Your task to perform on an android device: turn on priority inbox in the gmail app Image 0: 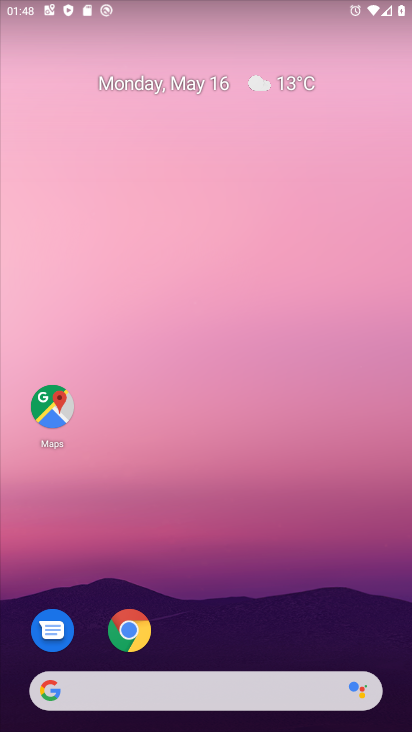
Step 0: drag from (155, 210) to (143, 110)
Your task to perform on an android device: turn on priority inbox in the gmail app Image 1: 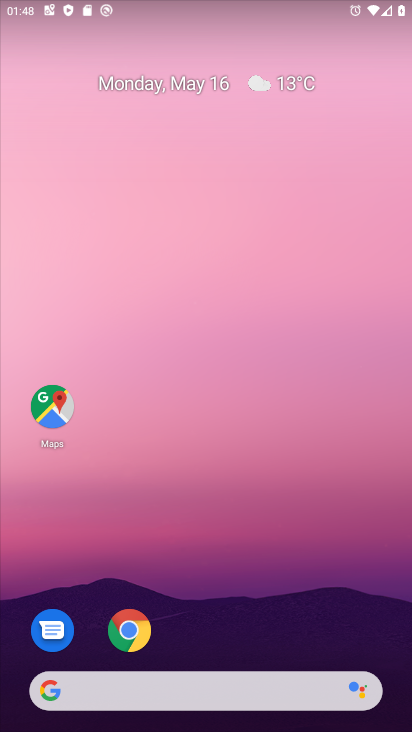
Step 1: drag from (238, 653) to (172, 213)
Your task to perform on an android device: turn on priority inbox in the gmail app Image 2: 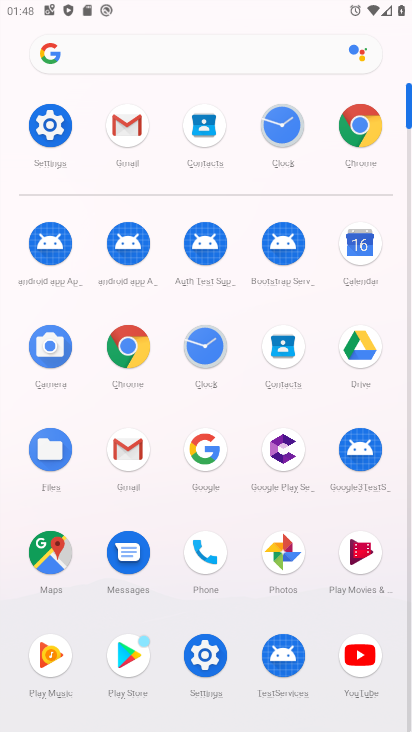
Step 2: click (121, 134)
Your task to perform on an android device: turn on priority inbox in the gmail app Image 3: 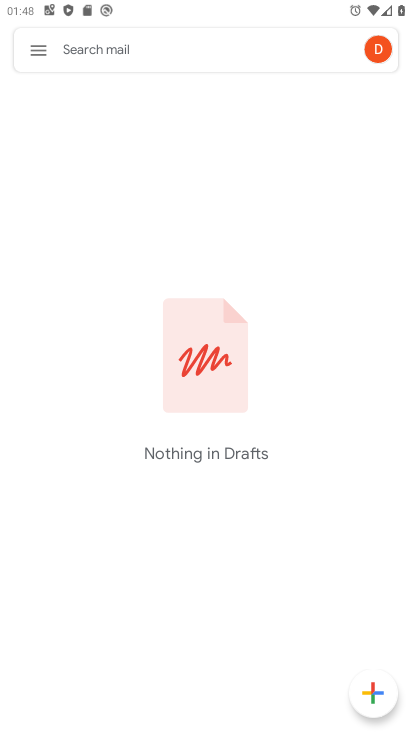
Step 3: click (36, 57)
Your task to perform on an android device: turn on priority inbox in the gmail app Image 4: 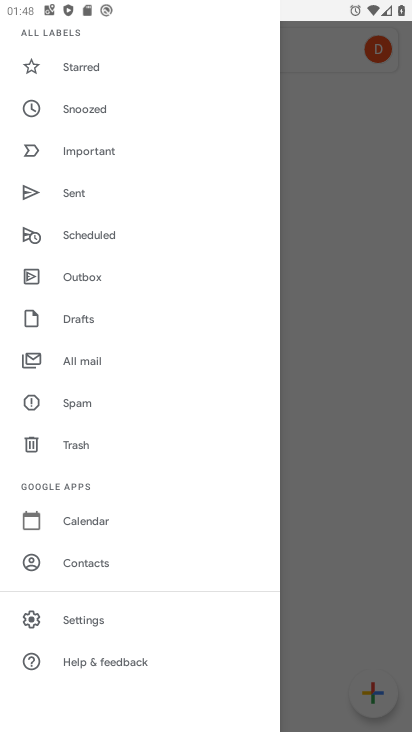
Step 4: click (92, 617)
Your task to perform on an android device: turn on priority inbox in the gmail app Image 5: 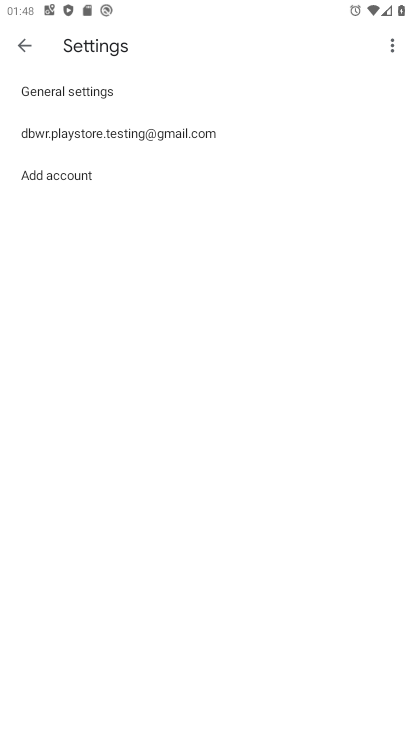
Step 5: press back button
Your task to perform on an android device: turn on priority inbox in the gmail app Image 6: 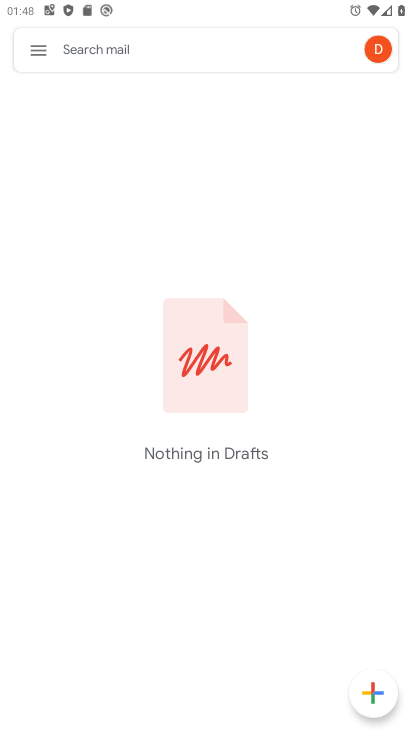
Step 6: click (51, 45)
Your task to perform on an android device: turn on priority inbox in the gmail app Image 7: 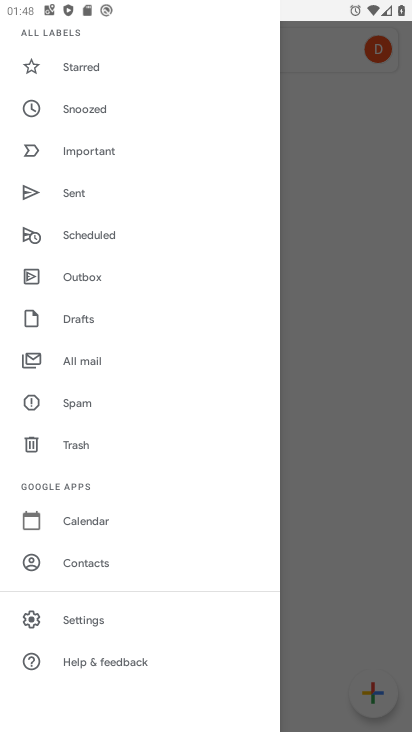
Step 7: click (70, 342)
Your task to perform on an android device: turn on priority inbox in the gmail app Image 8: 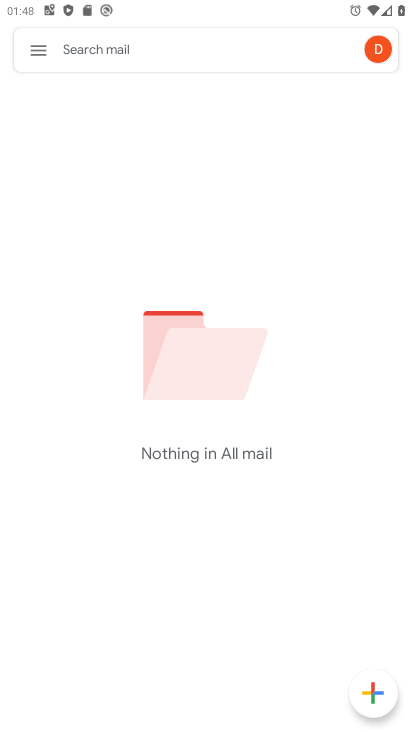
Step 8: task complete